Your task to perform on an android device: read, delete, or share a saved page in the chrome app Image 0: 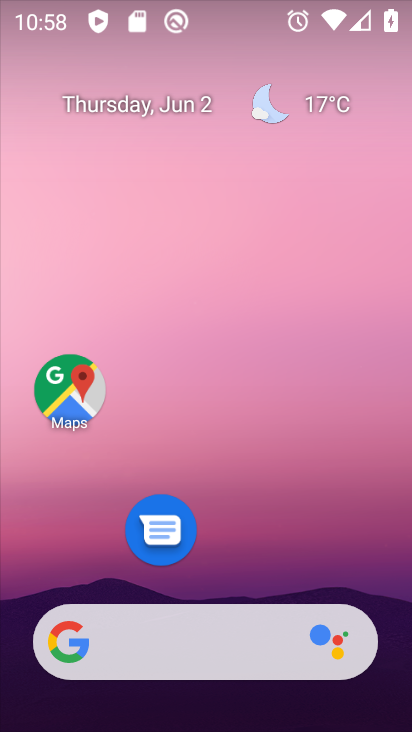
Step 0: click (268, 108)
Your task to perform on an android device: read, delete, or share a saved page in the chrome app Image 1: 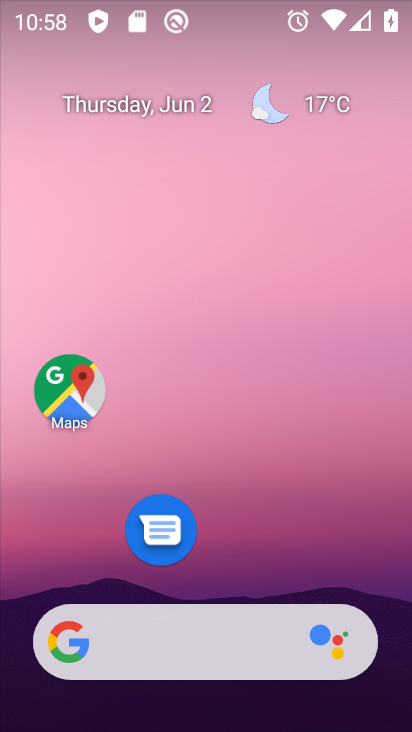
Step 1: drag from (179, 709) to (221, 142)
Your task to perform on an android device: read, delete, or share a saved page in the chrome app Image 2: 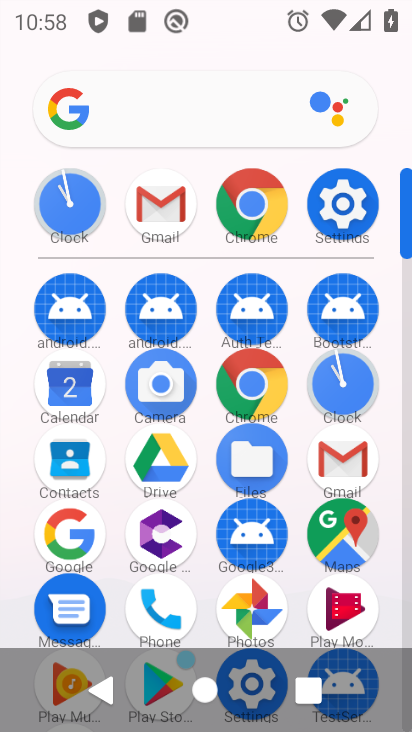
Step 2: click (258, 207)
Your task to perform on an android device: read, delete, or share a saved page in the chrome app Image 3: 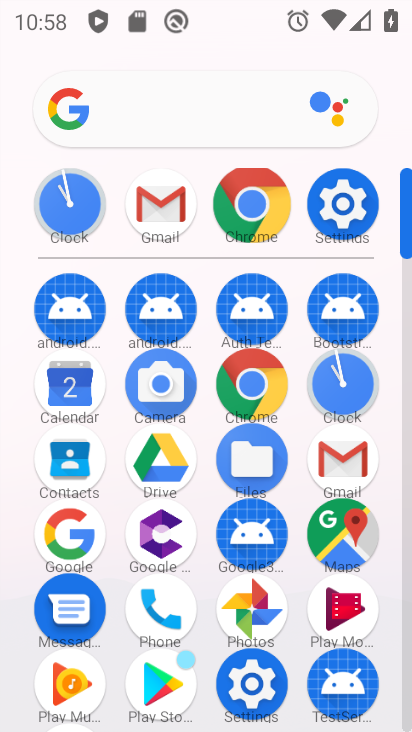
Step 3: click (262, 214)
Your task to perform on an android device: read, delete, or share a saved page in the chrome app Image 4: 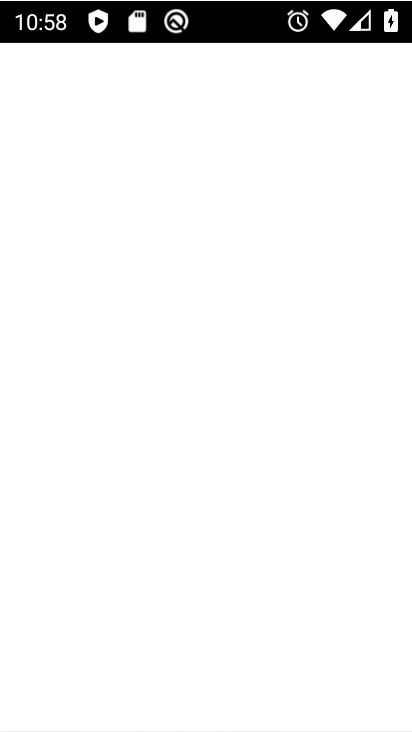
Step 4: click (273, 217)
Your task to perform on an android device: read, delete, or share a saved page in the chrome app Image 5: 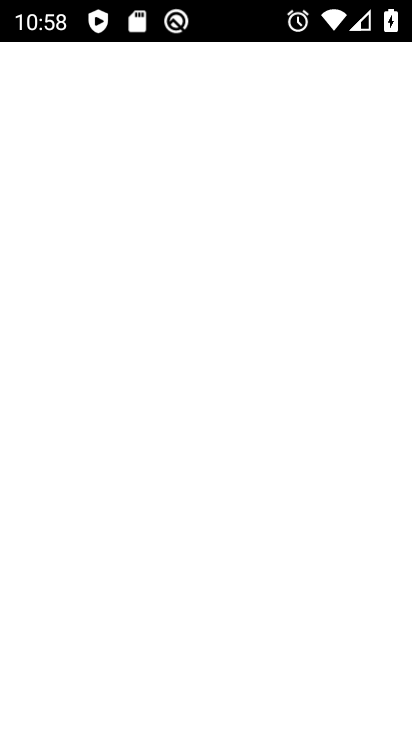
Step 5: click (277, 216)
Your task to perform on an android device: read, delete, or share a saved page in the chrome app Image 6: 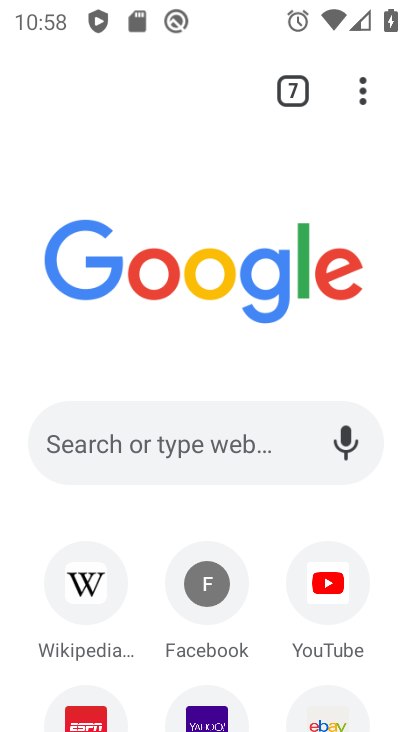
Step 6: click (365, 91)
Your task to perform on an android device: read, delete, or share a saved page in the chrome app Image 7: 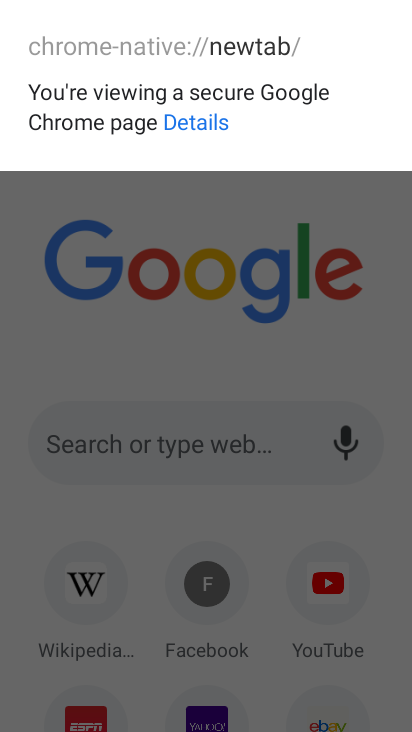
Step 7: click (338, 213)
Your task to perform on an android device: read, delete, or share a saved page in the chrome app Image 8: 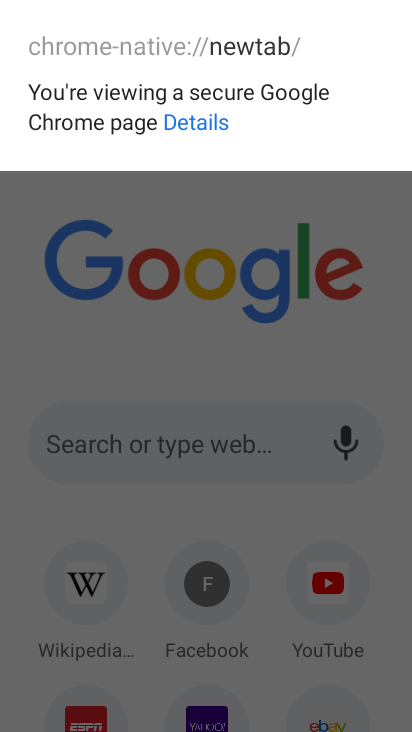
Step 8: click (338, 213)
Your task to perform on an android device: read, delete, or share a saved page in the chrome app Image 9: 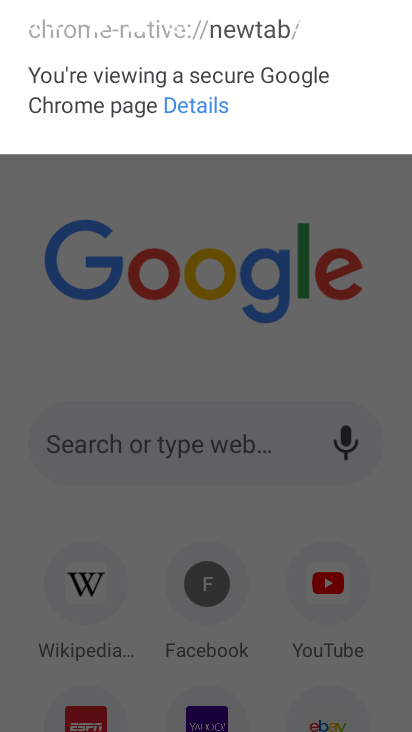
Step 9: click (340, 211)
Your task to perform on an android device: read, delete, or share a saved page in the chrome app Image 10: 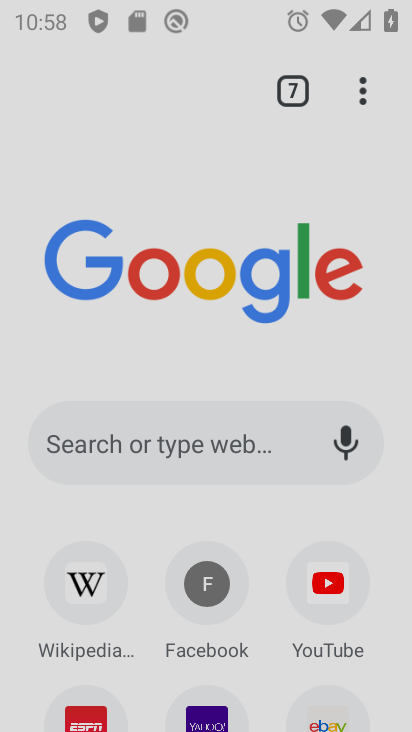
Step 10: click (343, 209)
Your task to perform on an android device: read, delete, or share a saved page in the chrome app Image 11: 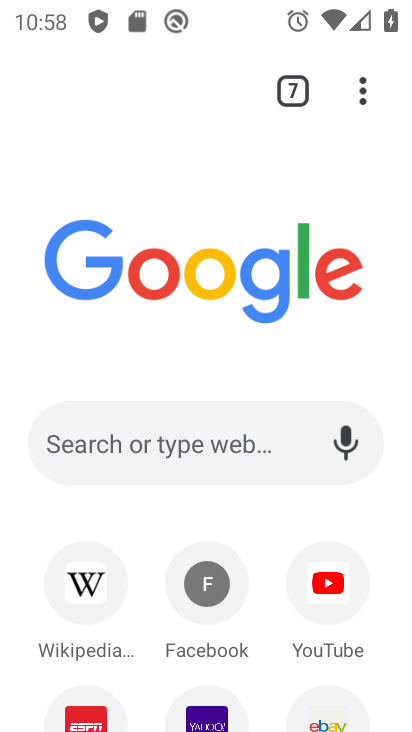
Step 11: click (363, 101)
Your task to perform on an android device: read, delete, or share a saved page in the chrome app Image 12: 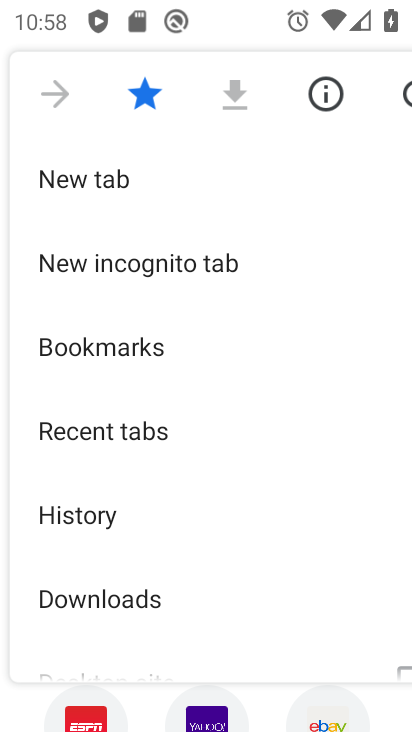
Step 12: click (83, 599)
Your task to perform on an android device: read, delete, or share a saved page in the chrome app Image 13: 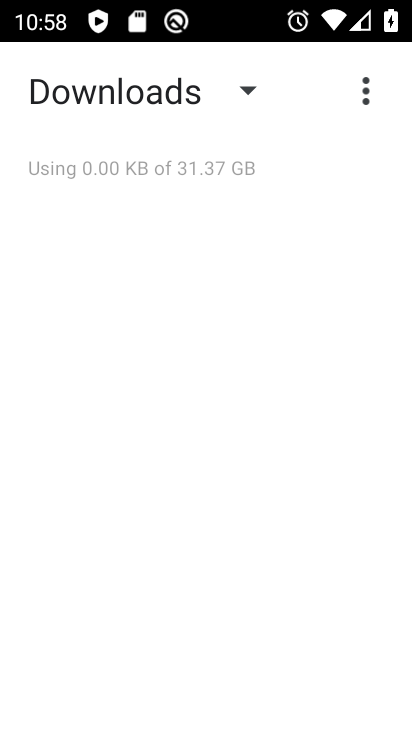
Step 13: task complete